Your task to perform on an android device: turn on notifications settings in the gmail app Image 0: 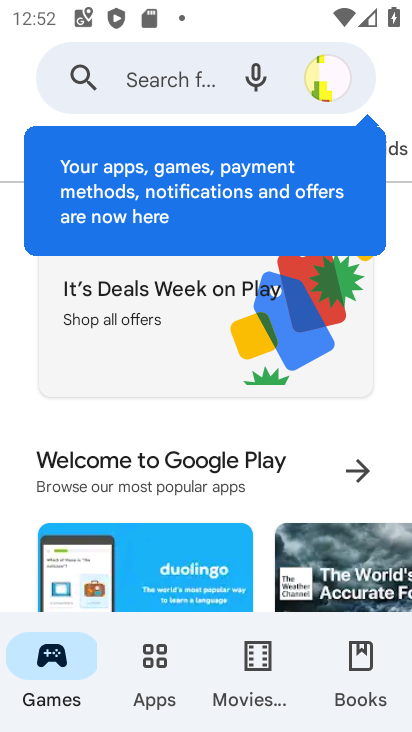
Step 0: press home button
Your task to perform on an android device: turn on notifications settings in the gmail app Image 1: 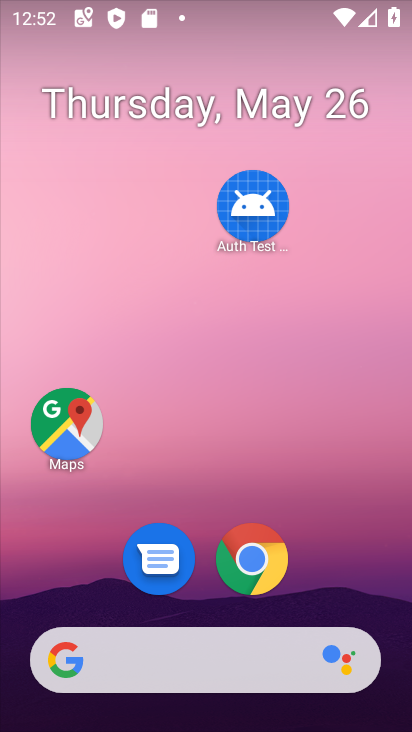
Step 1: drag from (382, 600) to (361, 28)
Your task to perform on an android device: turn on notifications settings in the gmail app Image 2: 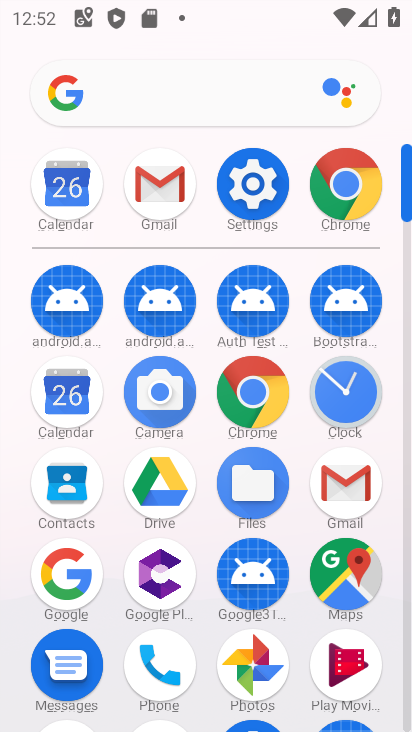
Step 2: click (161, 183)
Your task to perform on an android device: turn on notifications settings in the gmail app Image 3: 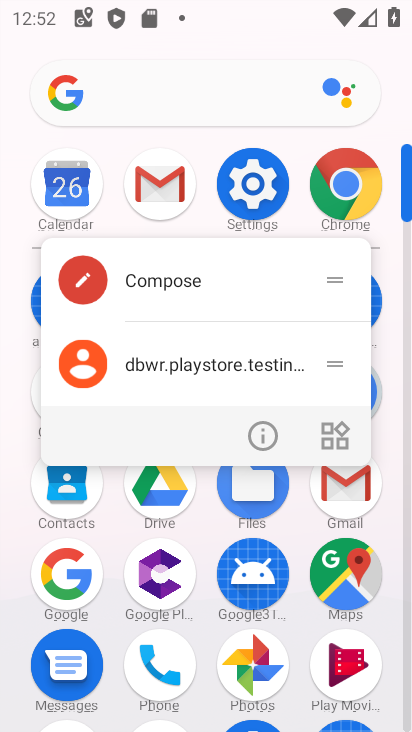
Step 3: click (261, 435)
Your task to perform on an android device: turn on notifications settings in the gmail app Image 4: 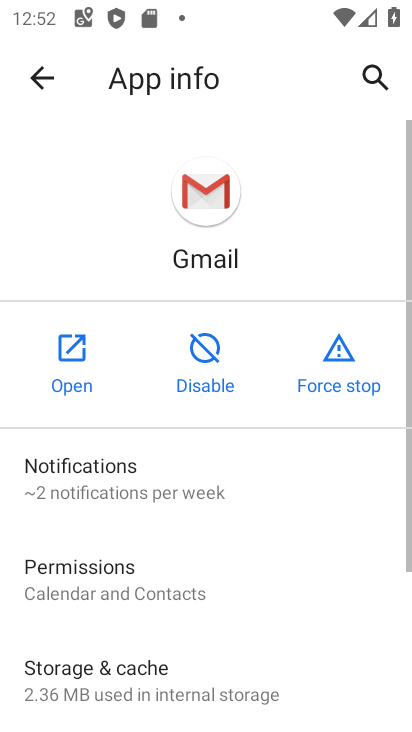
Step 4: click (159, 455)
Your task to perform on an android device: turn on notifications settings in the gmail app Image 5: 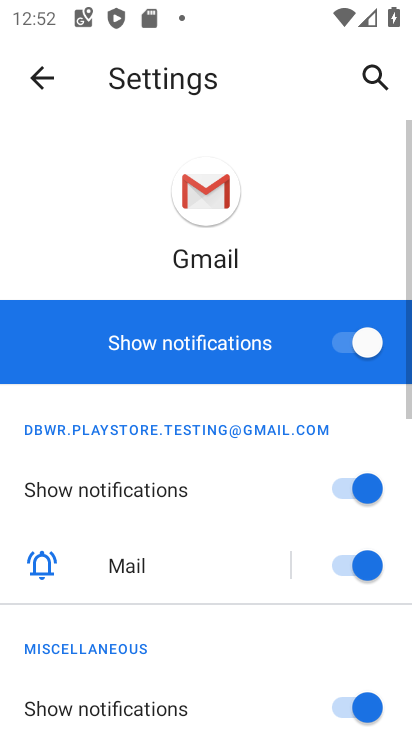
Step 5: task complete